Your task to perform on an android device: Search for a 1/4" hex shank drill bit on Lowe's. Image 0: 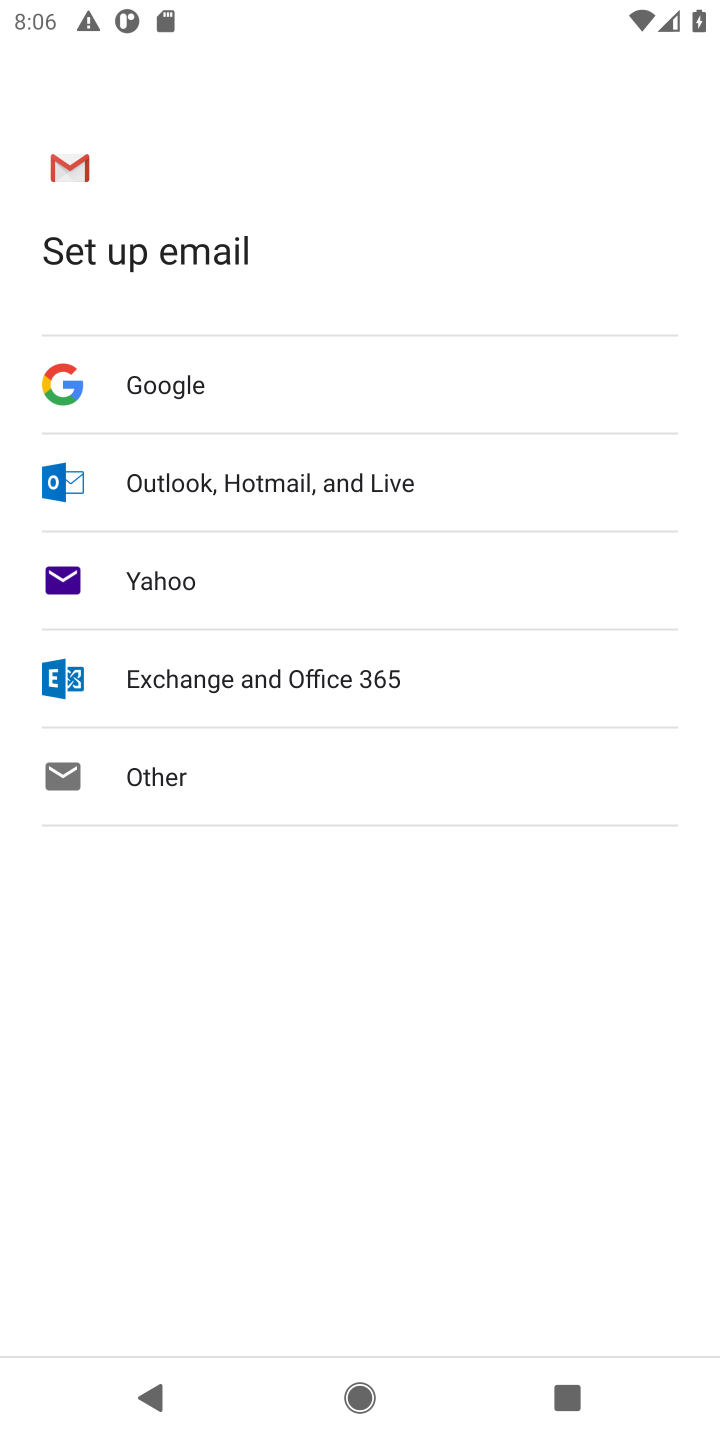
Step 0: press home button
Your task to perform on an android device: Search for a 1/4" hex shank drill bit on Lowe's. Image 1: 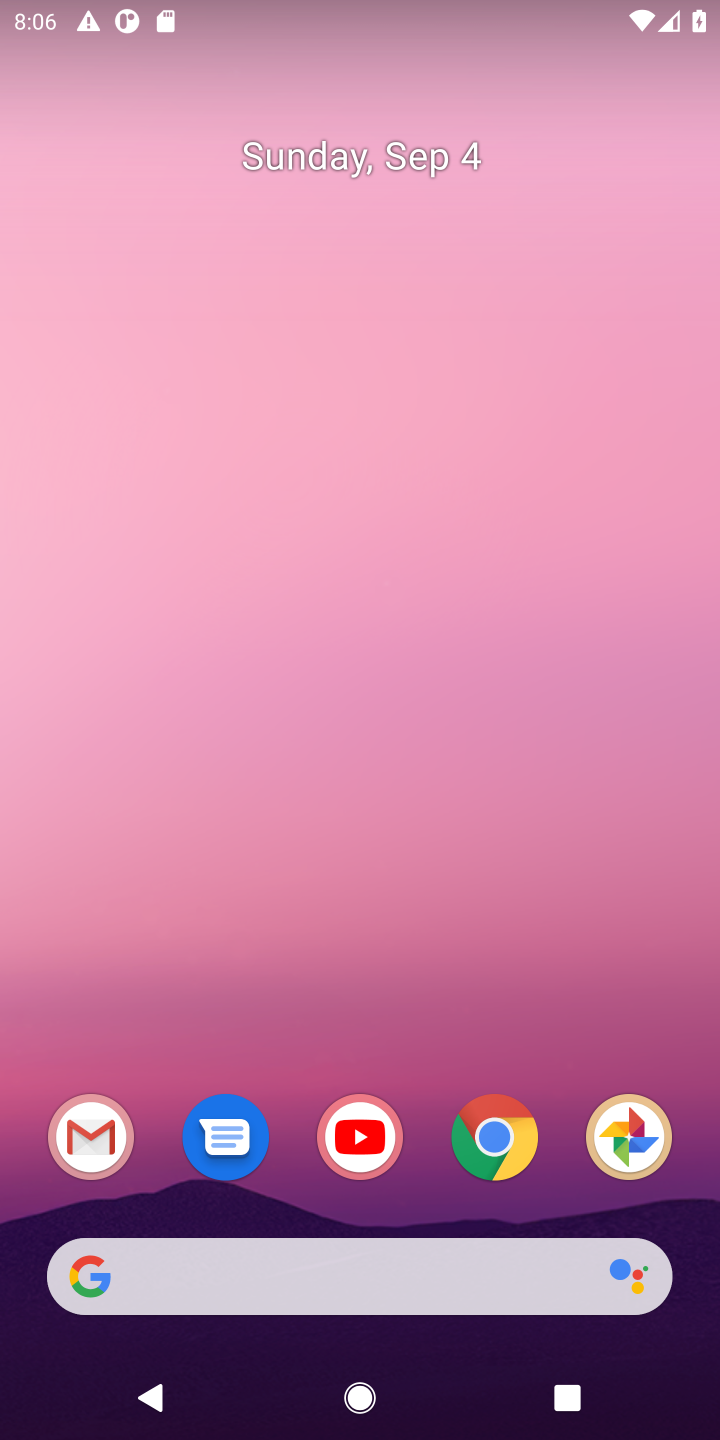
Step 1: click (495, 1134)
Your task to perform on an android device: Search for a 1/4" hex shank drill bit on Lowe's. Image 2: 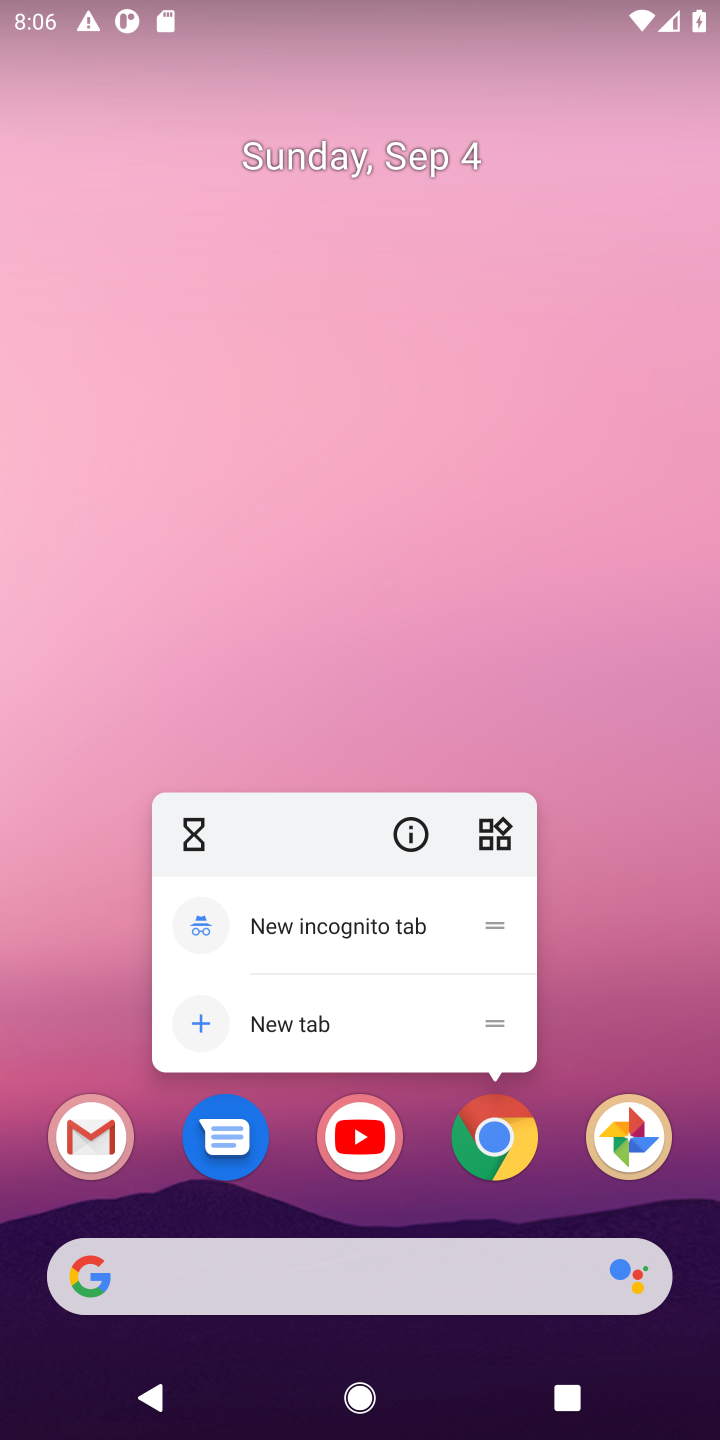
Step 2: click (494, 1136)
Your task to perform on an android device: Search for a 1/4" hex shank drill bit on Lowe's. Image 3: 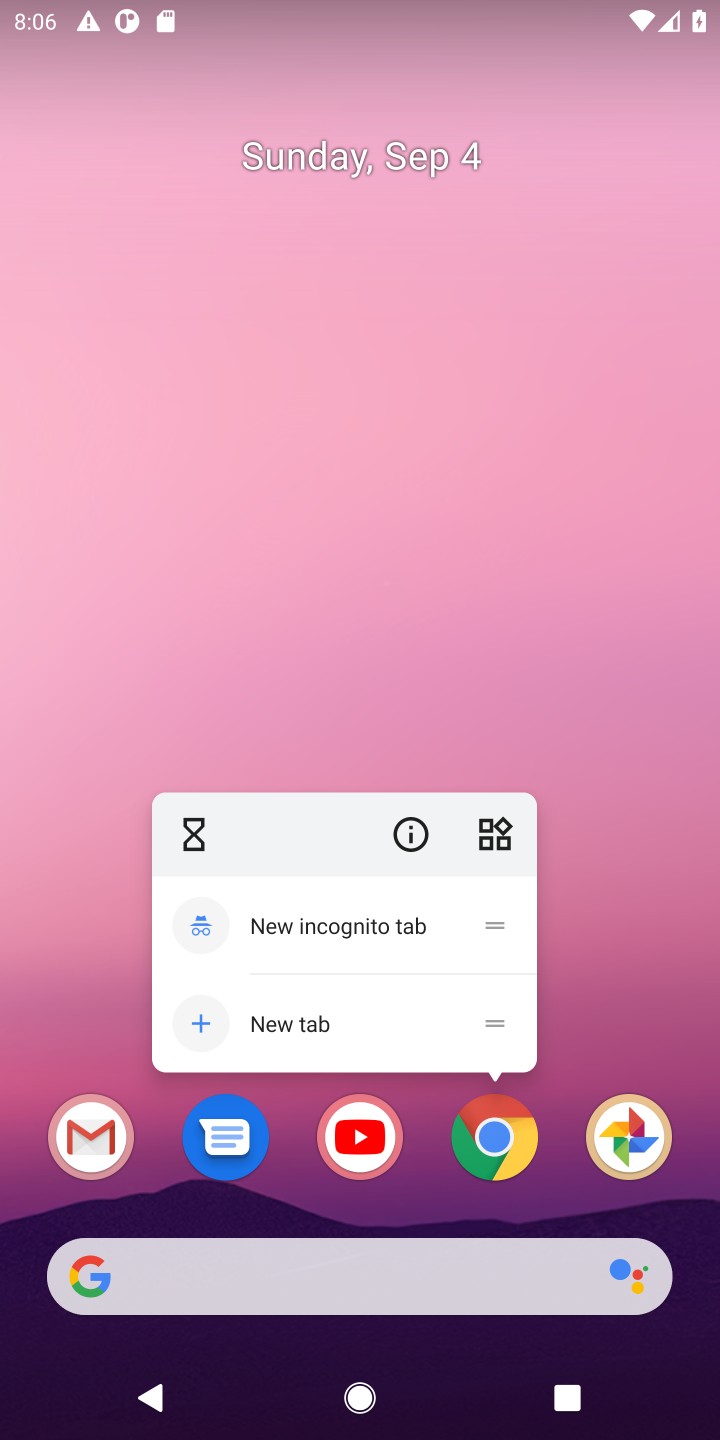
Step 3: click (495, 1141)
Your task to perform on an android device: Search for a 1/4" hex shank drill bit on Lowe's. Image 4: 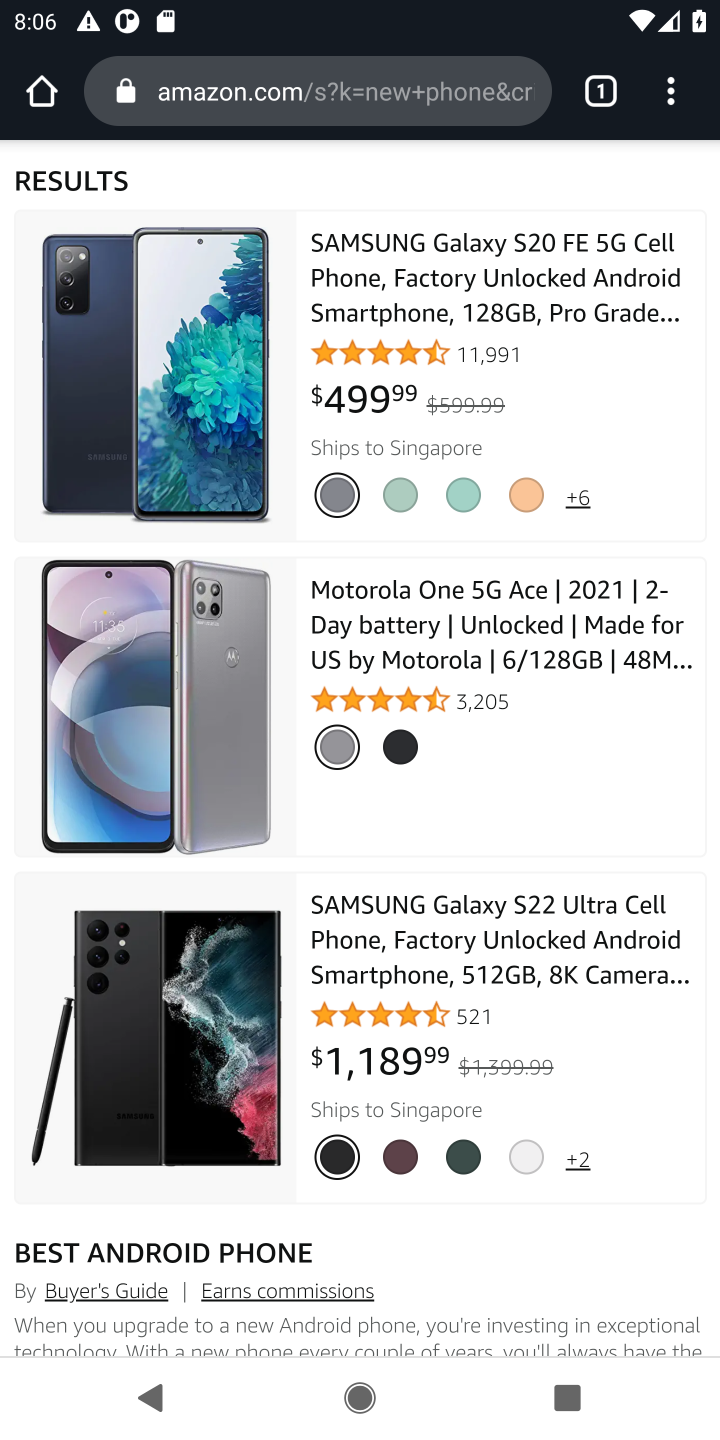
Step 4: click (369, 87)
Your task to perform on an android device: Search for a 1/4" hex shank drill bit on Lowe's. Image 5: 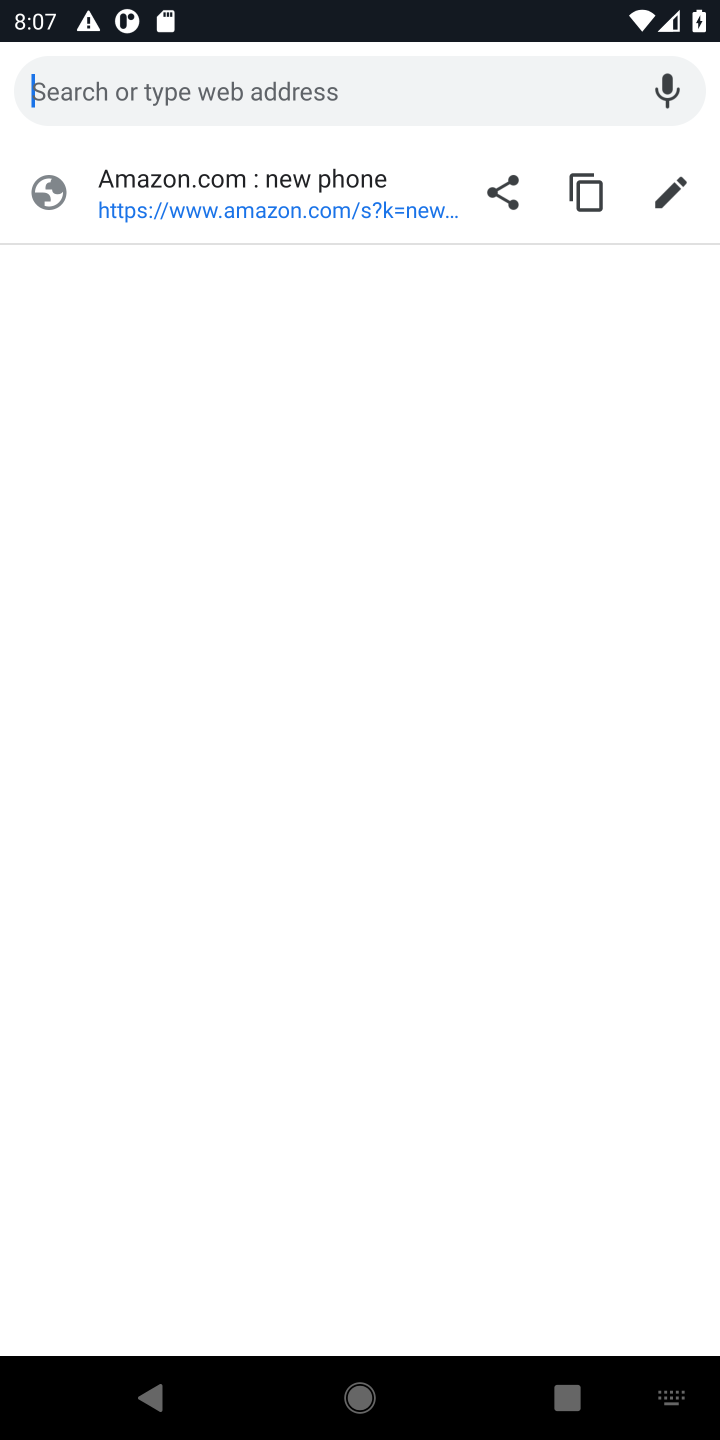
Step 5: type "Lowe's"
Your task to perform on an android device: Search for a 1/4" hex shank drill bit on Lowe's. Image 6: 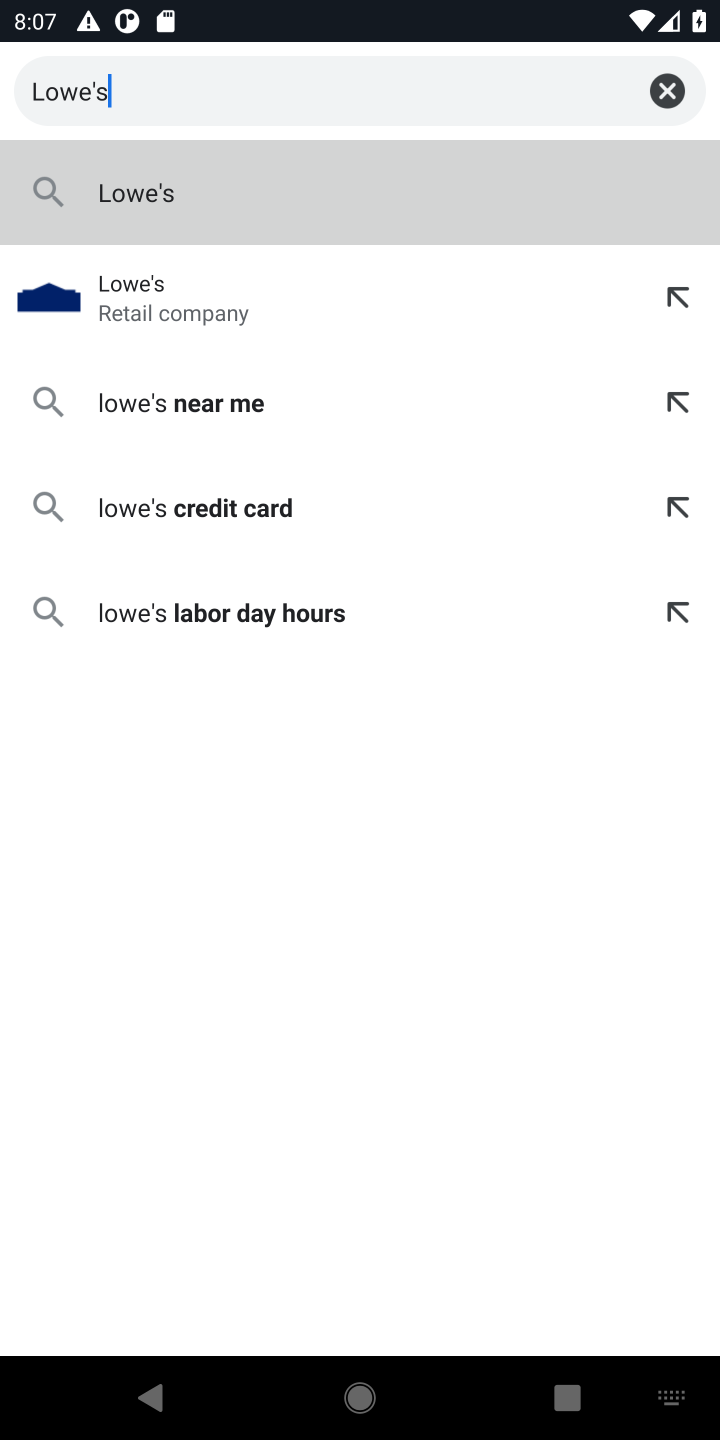
Step 6: click (151, 279)
Your task to perform on an android device: Search for a 1/4" hex shank drill bit on Lowe's. Image 7: 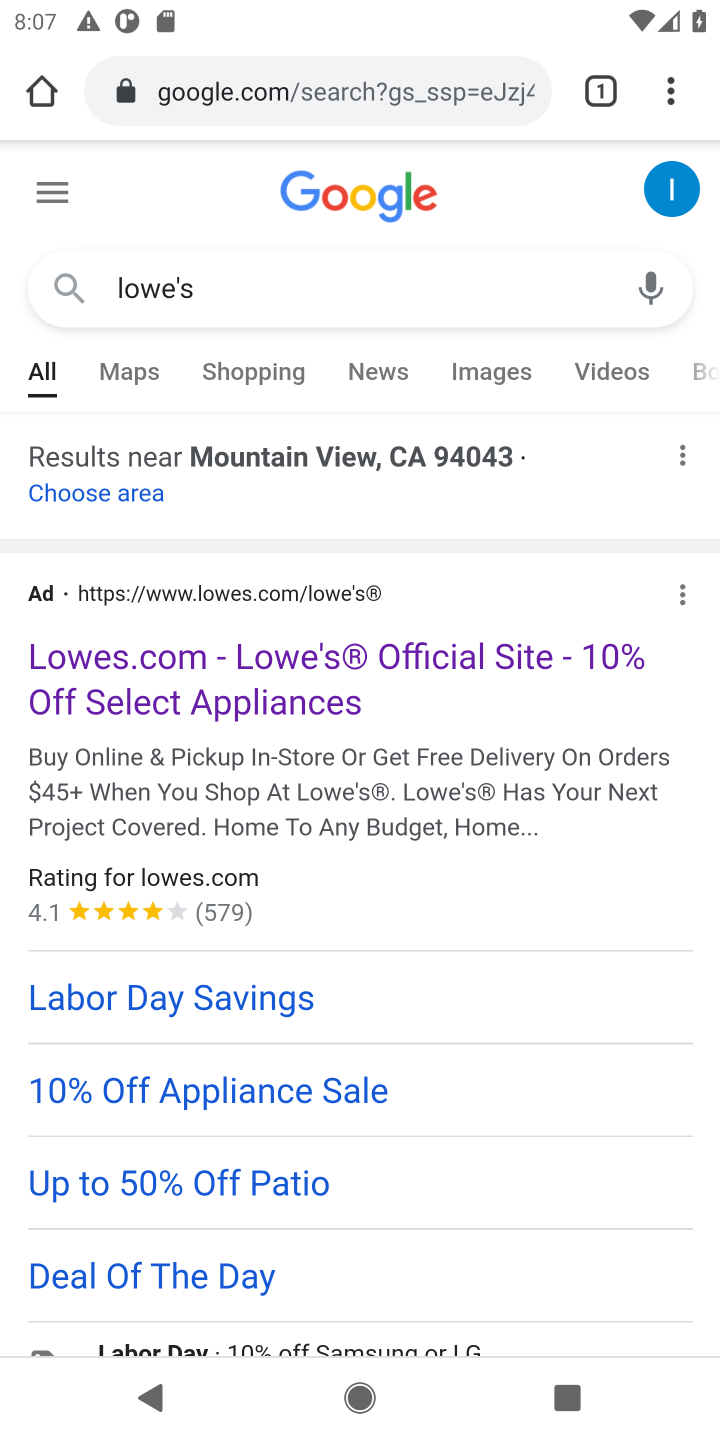
Step 7: drag from (381, 1280) to (384, 767)
Your task to perform on an android device: Search for a 1/4" hex shank drill bit on Lowe's. Image 8: 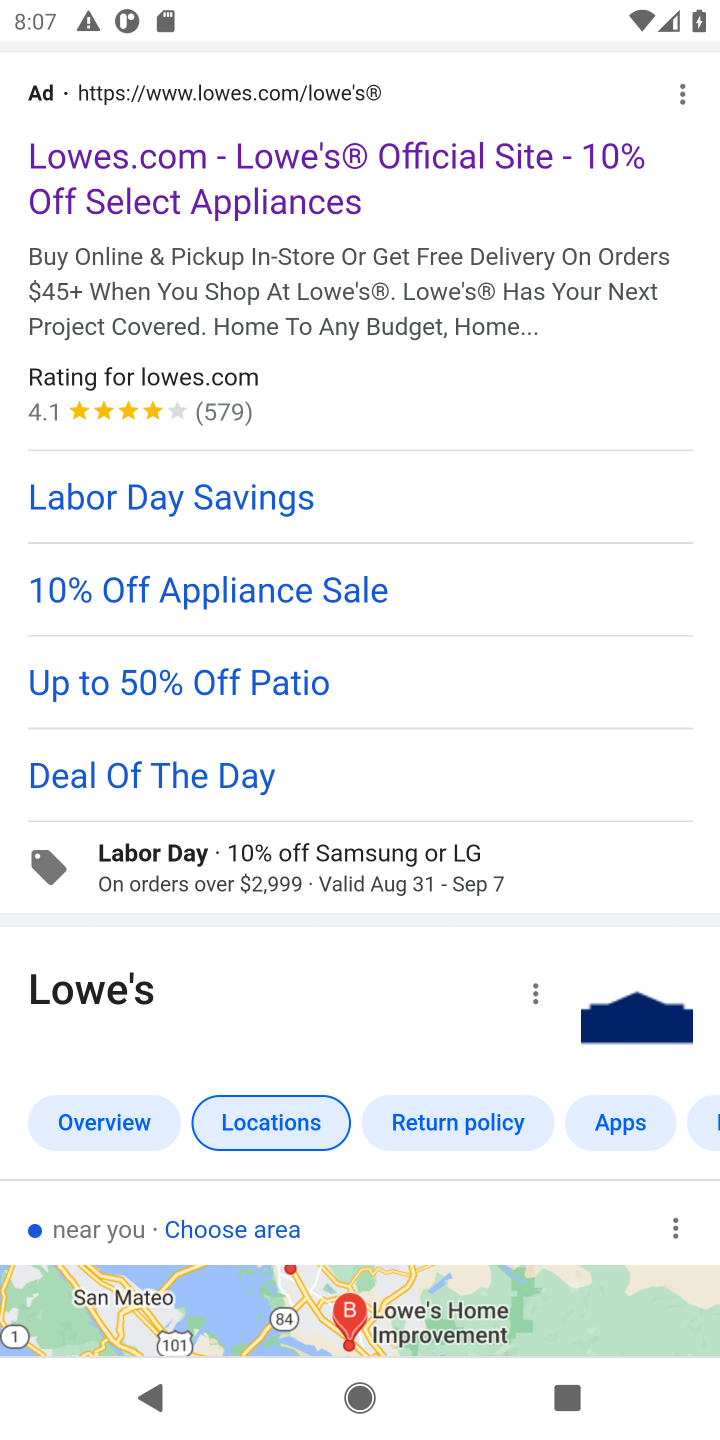
Step 8: drag from (364, 1067) to (331, 440)
Your task to perform on an android device: Search for a 1/4" hex shank drill bit on Lowe's. Image 9: 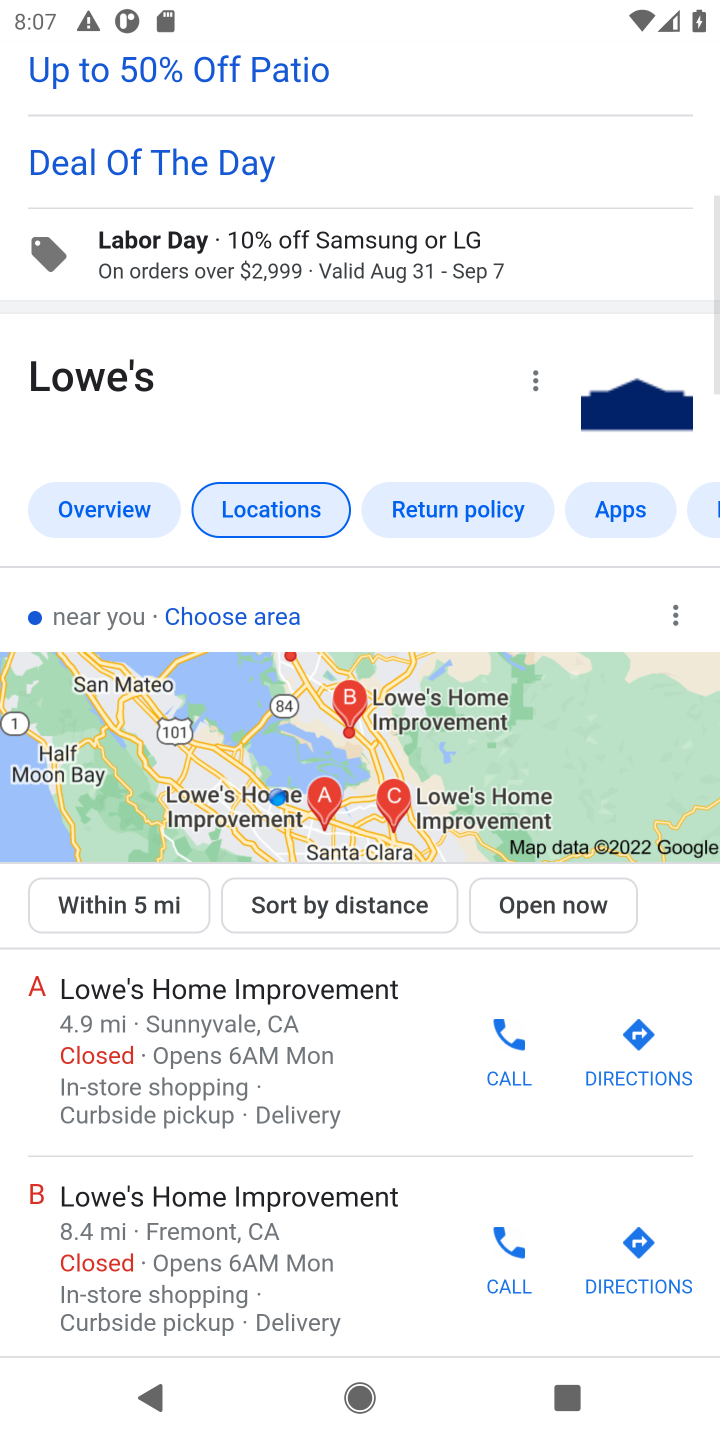
Step 9: drag from (329, 1277) to (277, 565)
Your task to perform on an android device: Search for a 1/4" hex shank drill bit on Lowe's. Image 10: 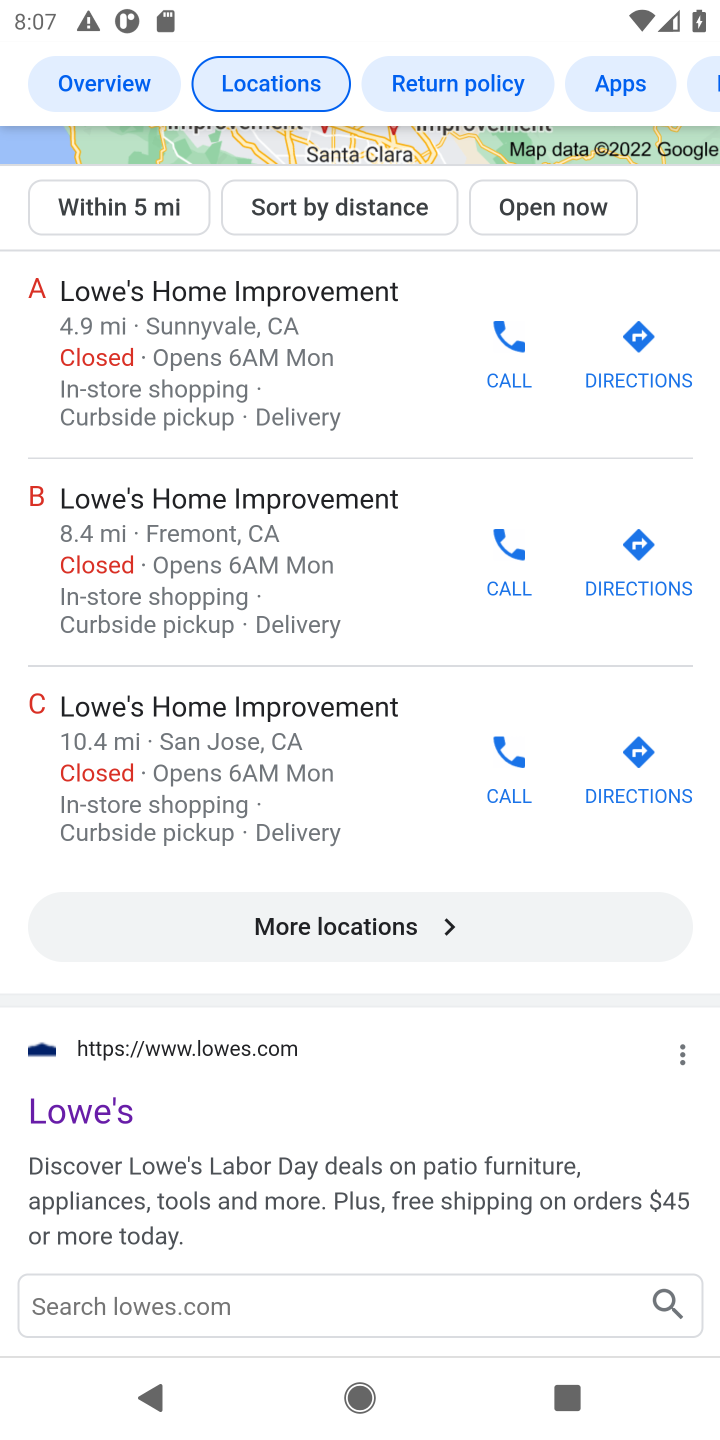
Step 10: click (131, 1133)
Your task to perform on an android device: Search for a 1/4" hex shank drill bit on Lowe's. Image 11: 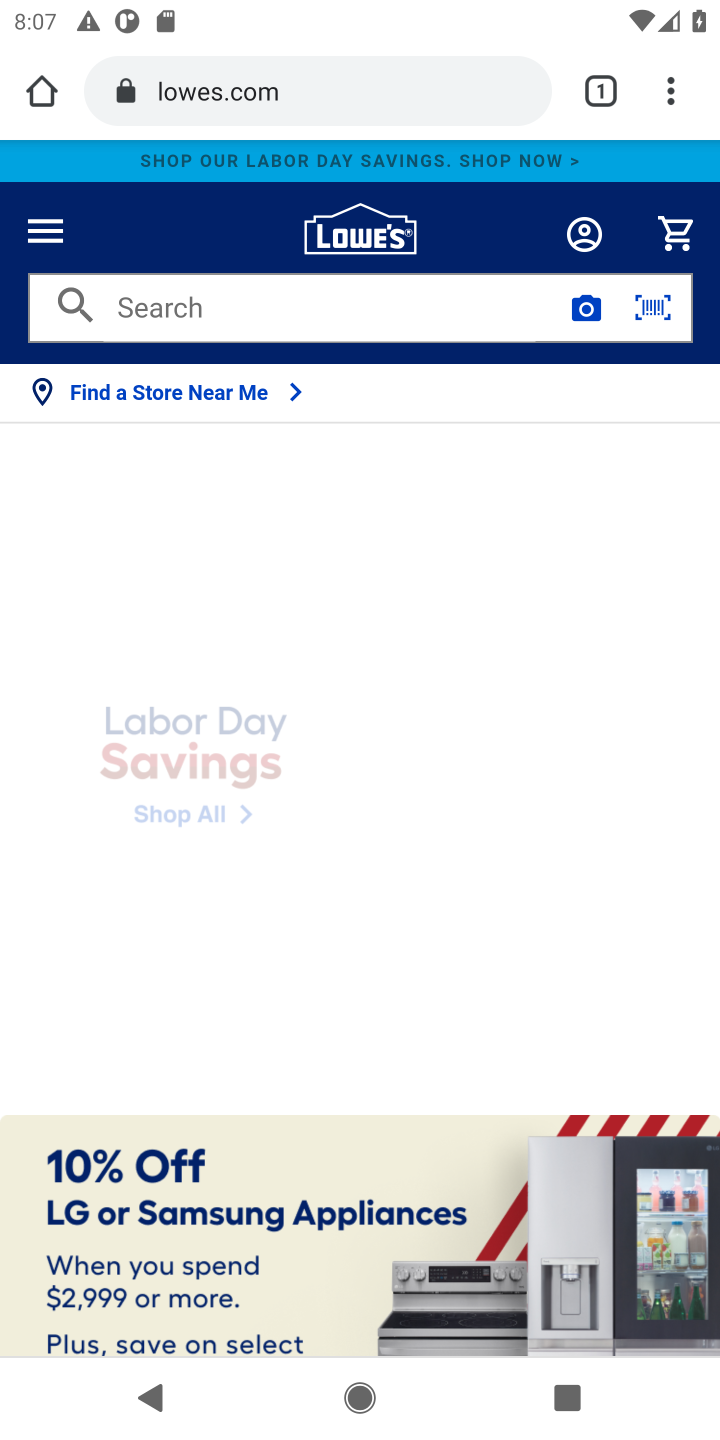
Step 11: click (205, 312)
Your task to perform on an android device: Search for a 1/4" hex shank drill bit on Lowe's. Image 12: 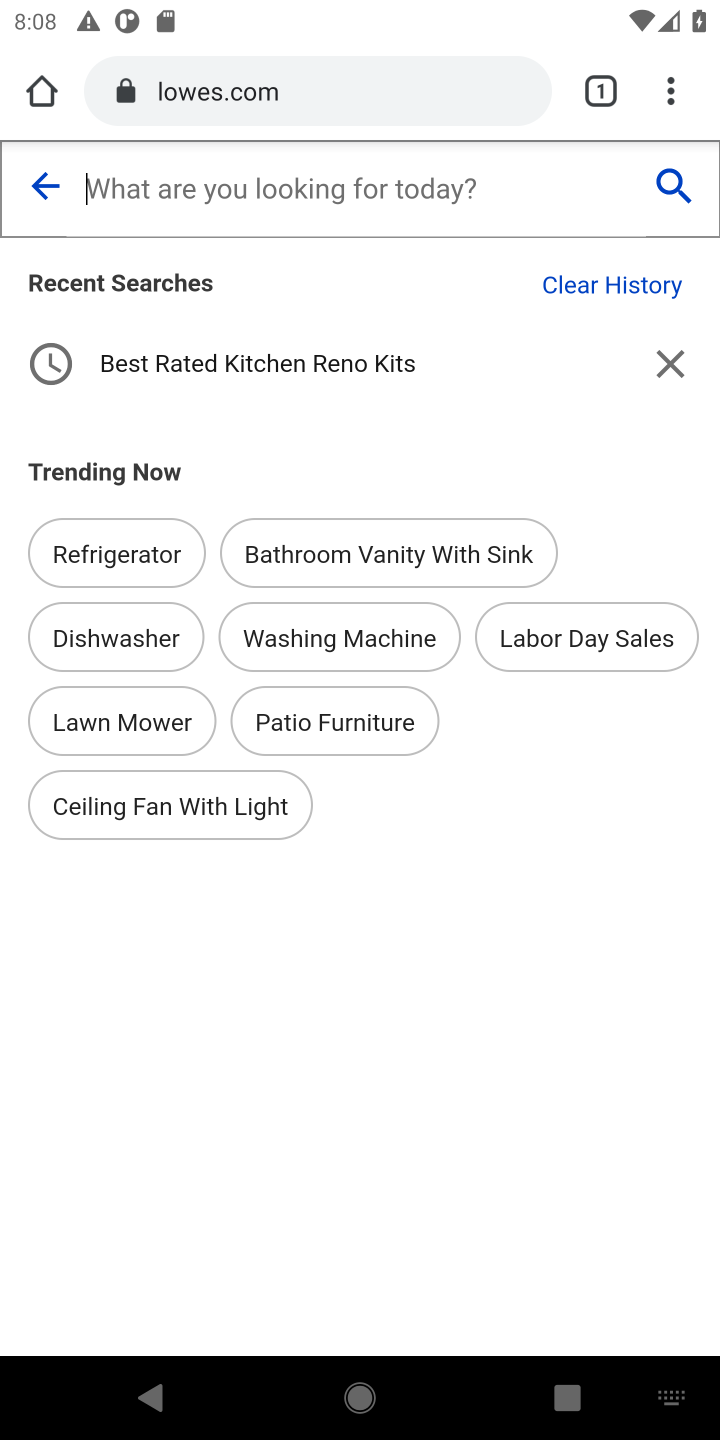
Step 12: type "1/4" hex shank drill bit"
Your task to perform on an android device: Search for a 1/4" hex shank drill bit on Lowe's. Image 13: 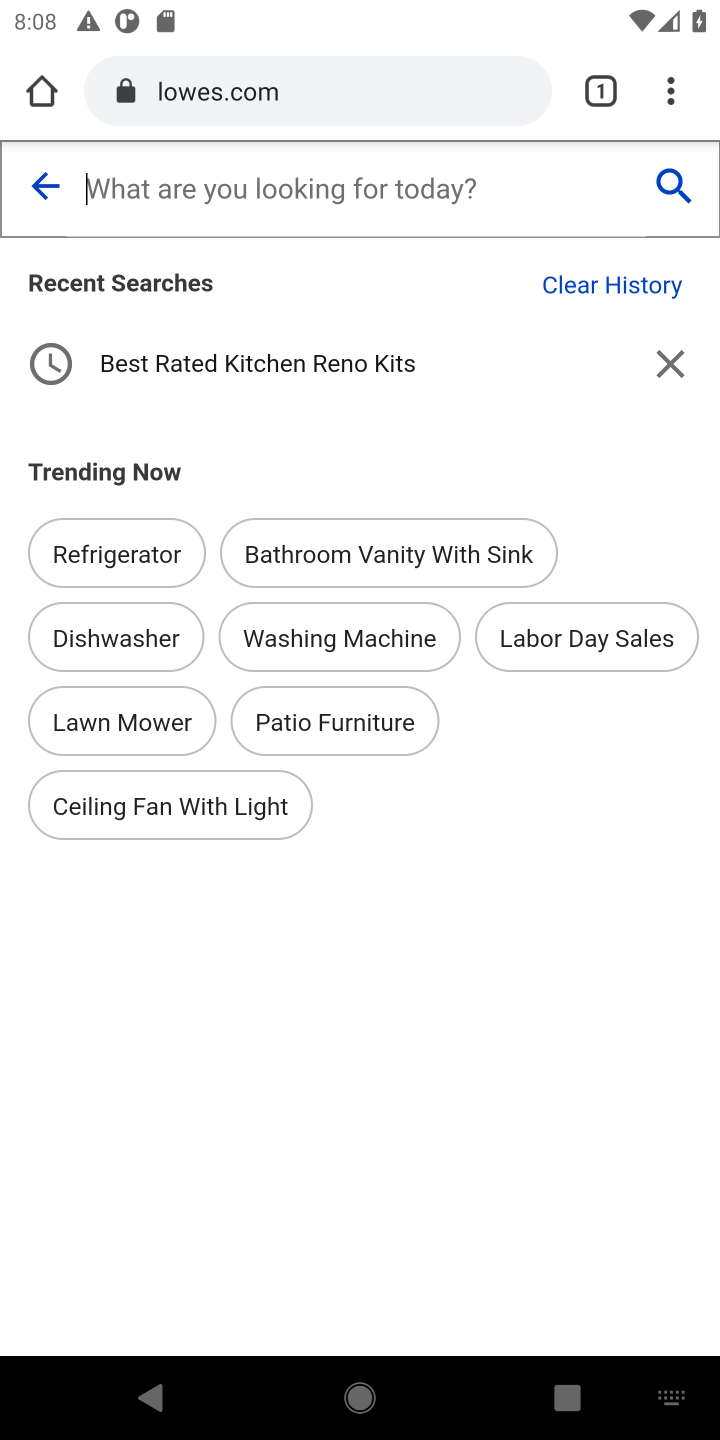
Step 13: type "1/4" hex shank drill bit"
Your task to perform on an android device: Search for a 1/4" hex shank drill bit on Lowe's. Image 14: 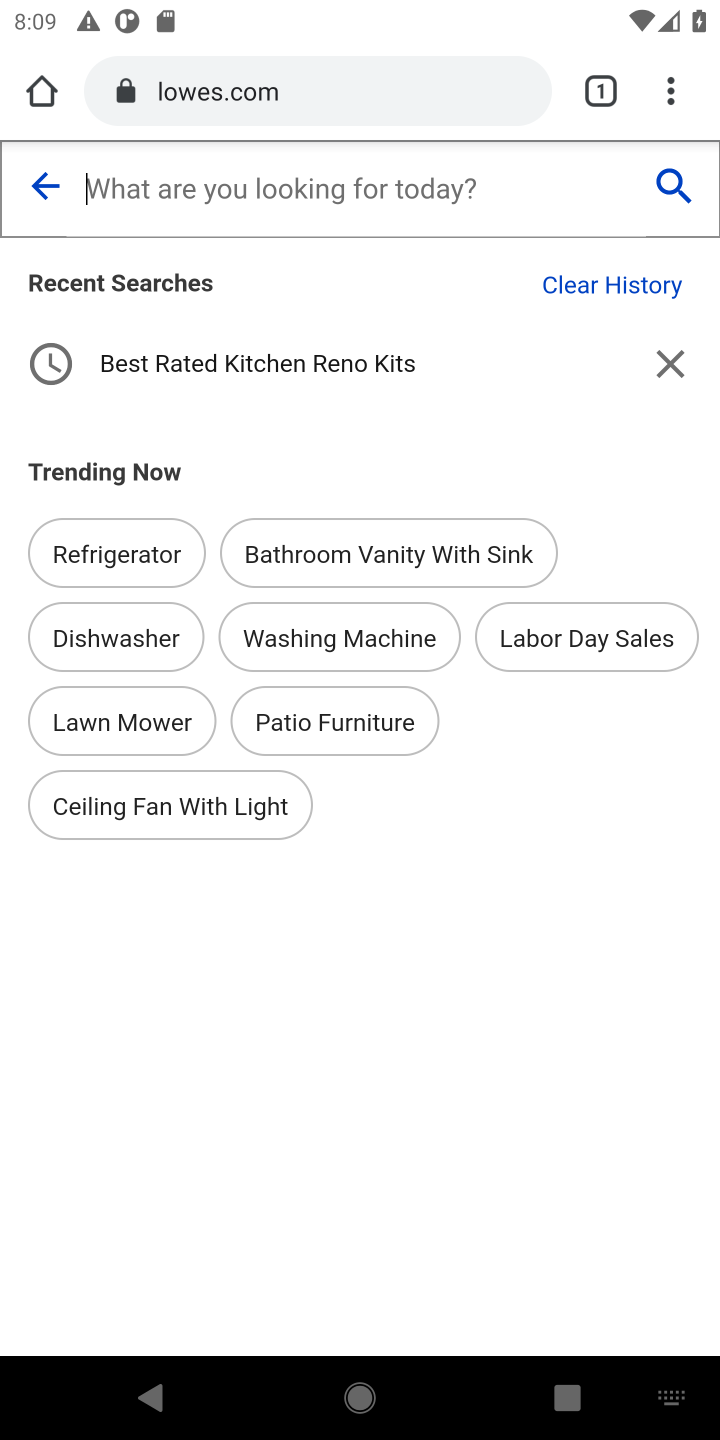
Step 14: type "hex shank drill bit"
Your task to perform on an android device: Search for a 1/4" hex shank drill bit on Lowe's. Image 15: 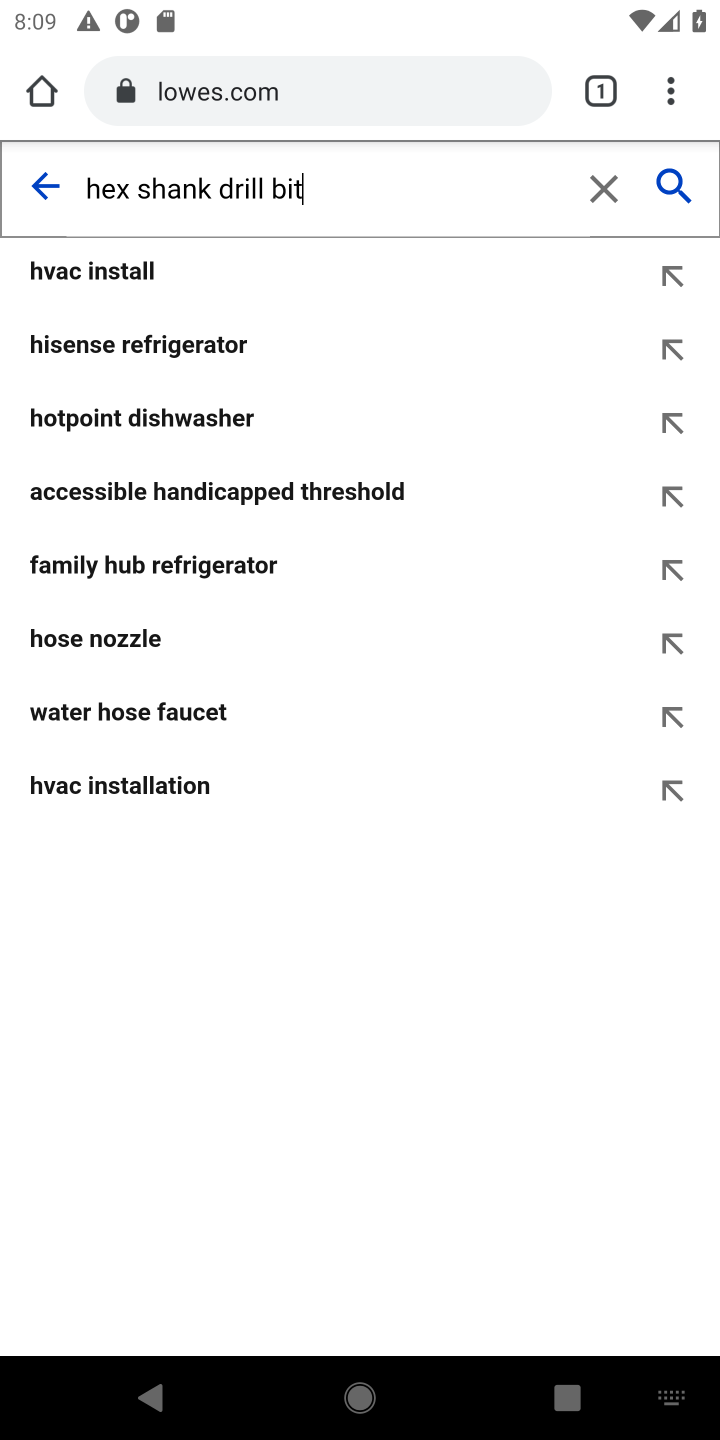
Step 15: type ""
Your task to perform on an android device: Search for a 1/4" hex shank drill bit on Lowe's. Image 16: 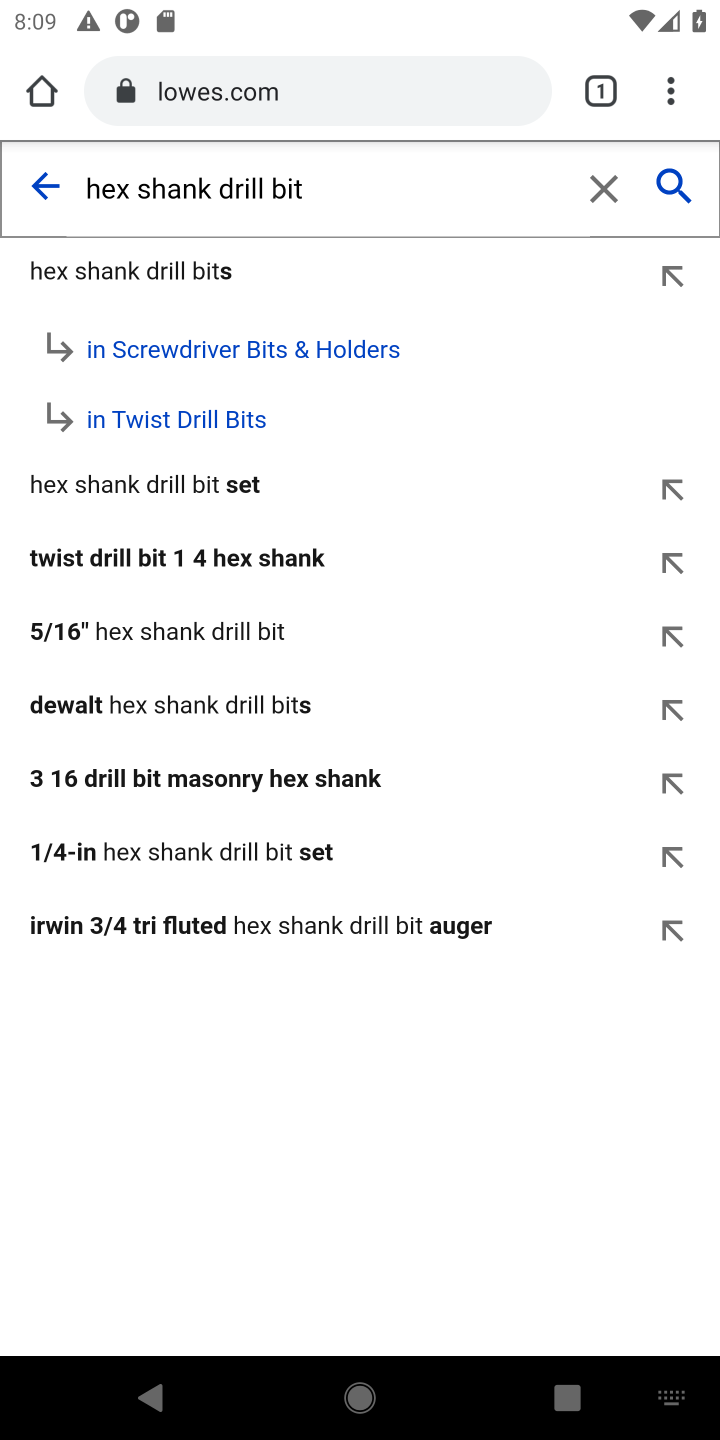
Step 16: click (232, 848)
Your task to perform on an android device: Search for a 1/4" hex shank drill bit on Lowe's. Image 17: 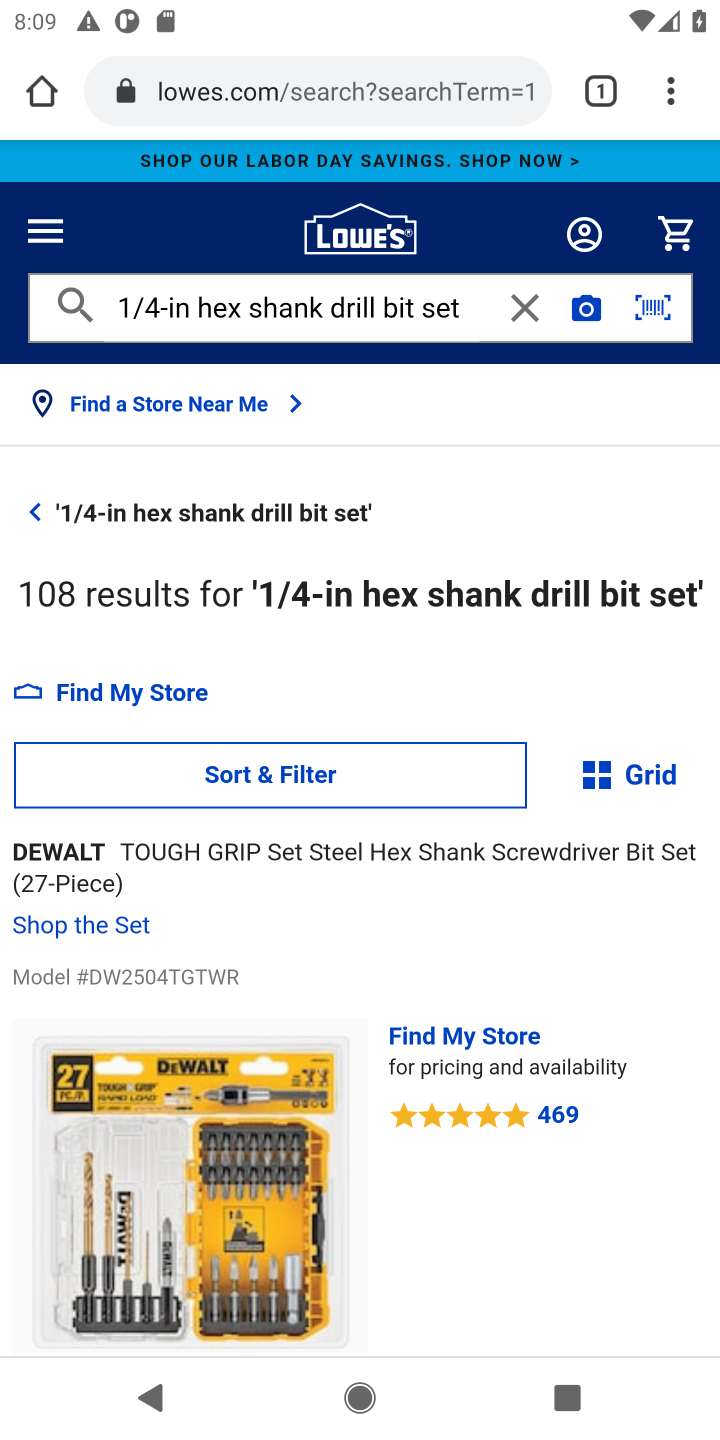
Step 17: task complete